Your task to perform on an android device: turn on translation in the chrome app Image 0: 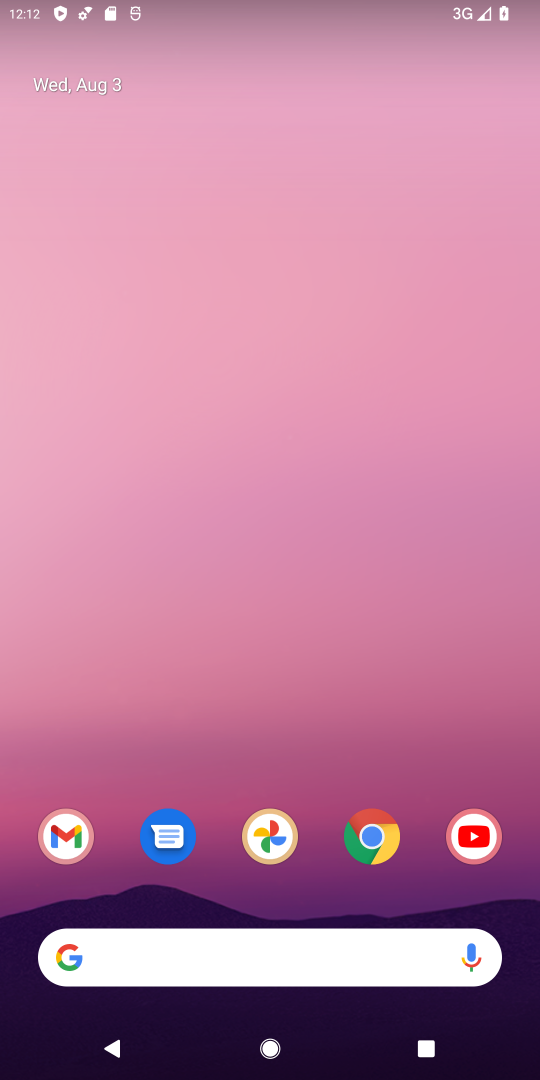
Step 0: drag from (211, 785) to (266, 191)
Your task to perform on an android device: turn on translation in the chrome app Image 1: 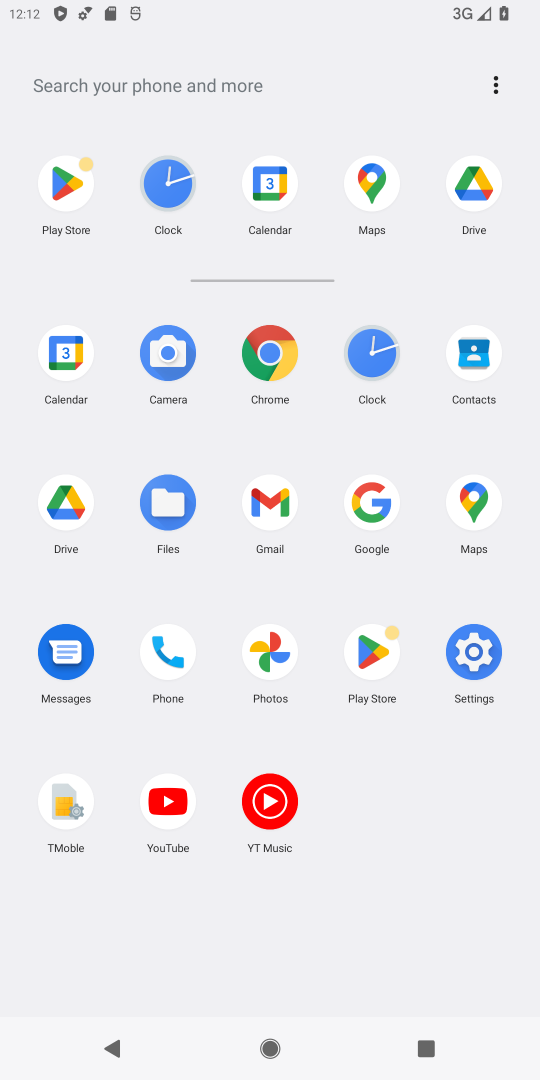
Step 1: click (272, 347)
Your task to perform on an android device: turn on translation in the chrome app Image 2: 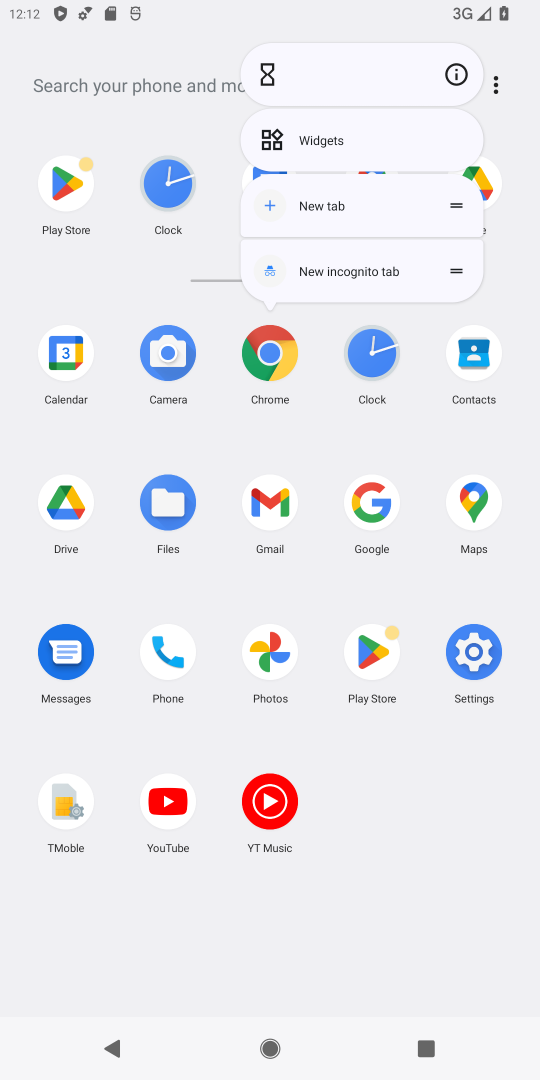
Step 2: click (455, 67)
Your task to perform on an android device: turn on translation in the chrome app Image 3: 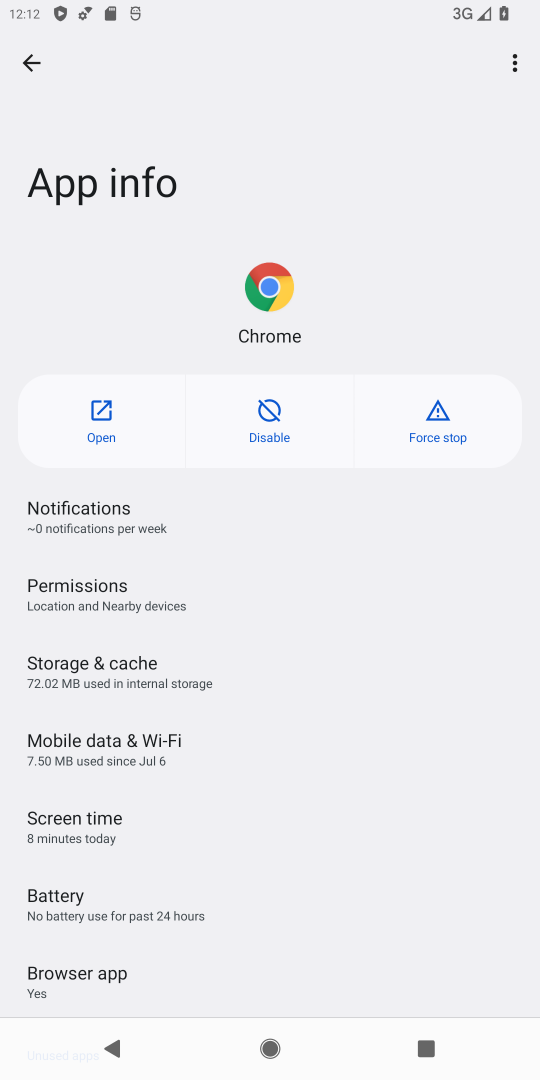
Step 3: click (114, 416)
Your task to perform on an android device: turn on translation in the chrome app Image 4: 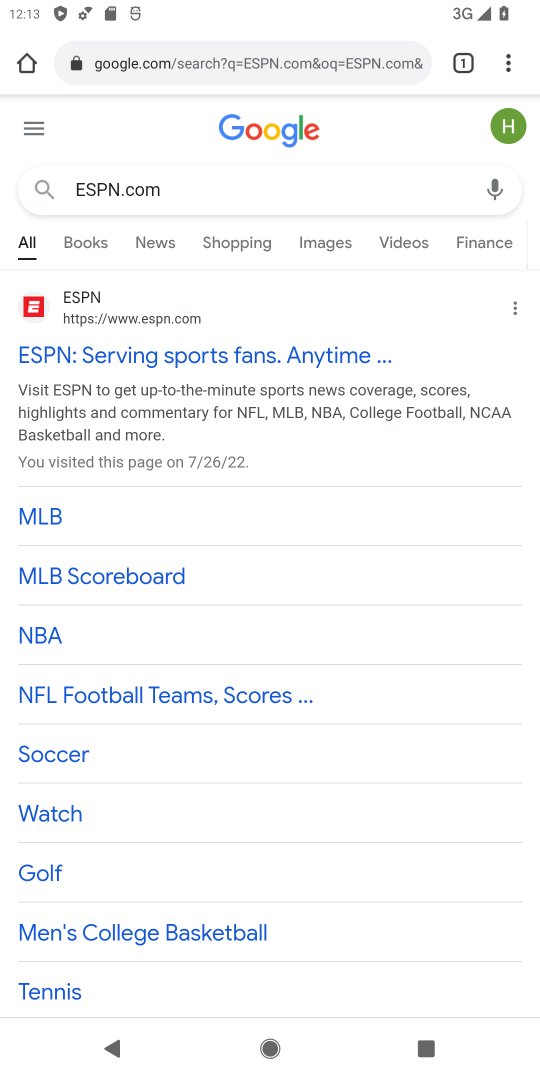
Step 4: drag from (508, 69) to (334, 809)
Your task to perform on an android device: turn on translation in the chrome app Image 5: 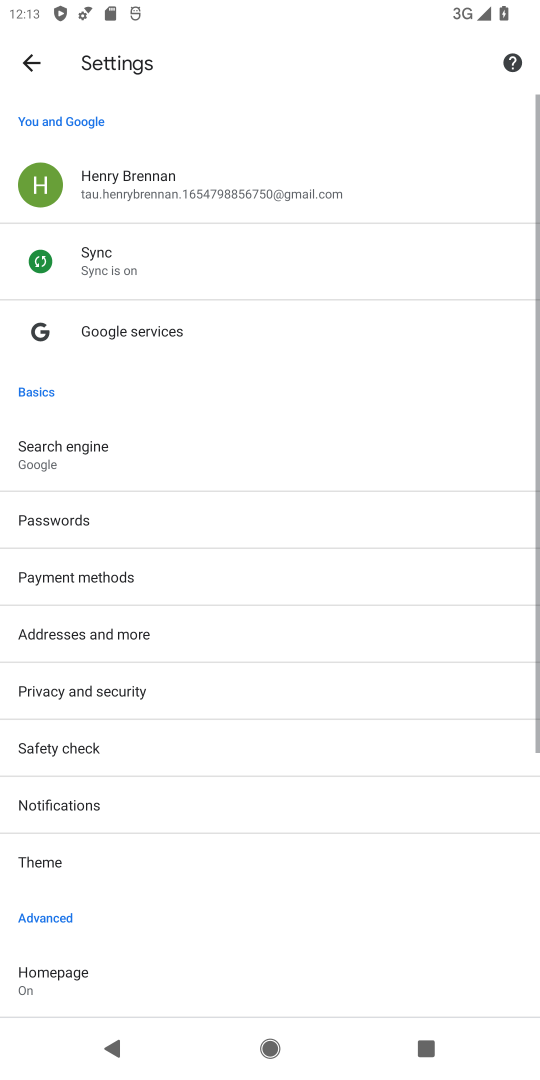
Step 5: drag from (130, 791) to (287, 359)
Your task to perform on an android device: turn on translation in the chrome app Image 6: 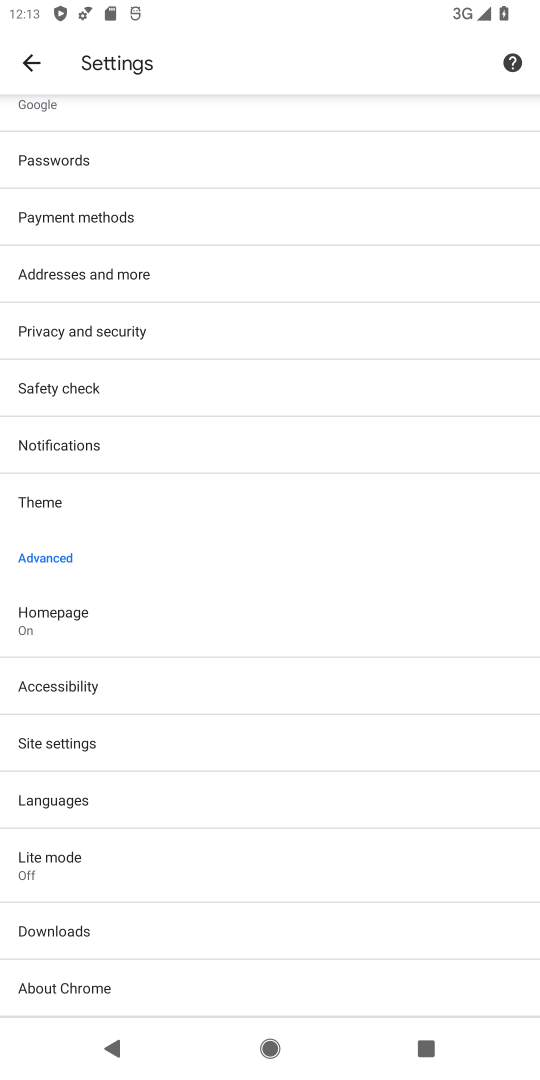
Step 6: drag from (218, 847) to (312, 435)
Your task to perform on an android device: turn on translation in the chrome app Image 7: 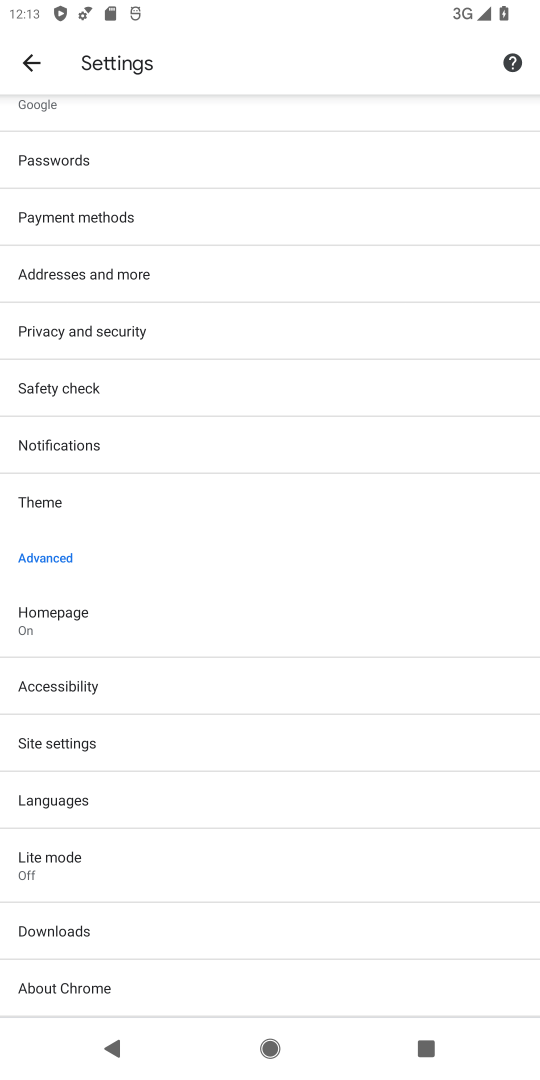
Step 7: drag from (273, 793) to (397, 331)
Your task to perform on an android device: turn on translation in the chrome app Image 8: 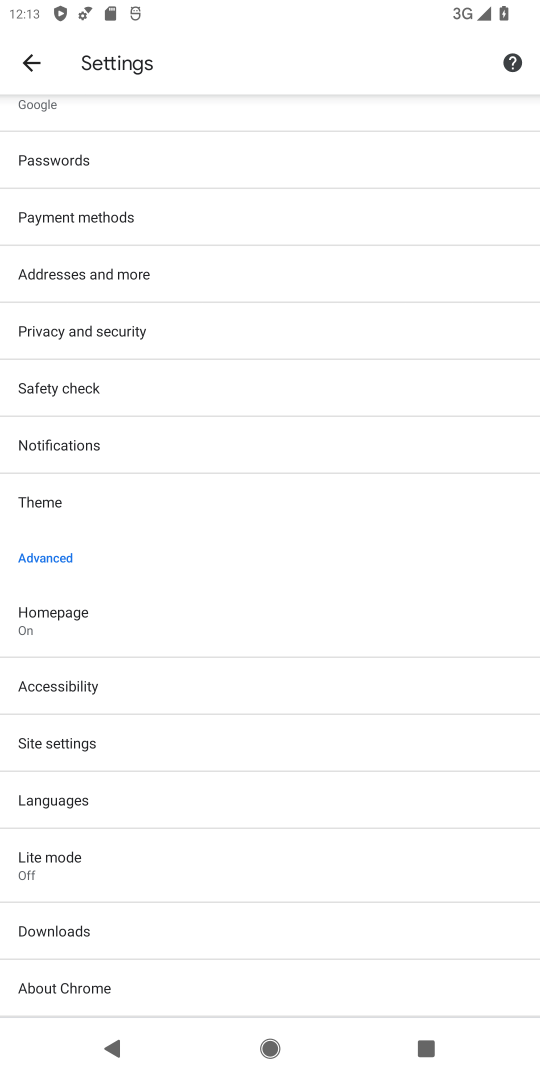
Step 8: click (127, 794)
Your task to perform on an android device: turn on translation in the chrome app Image 9: 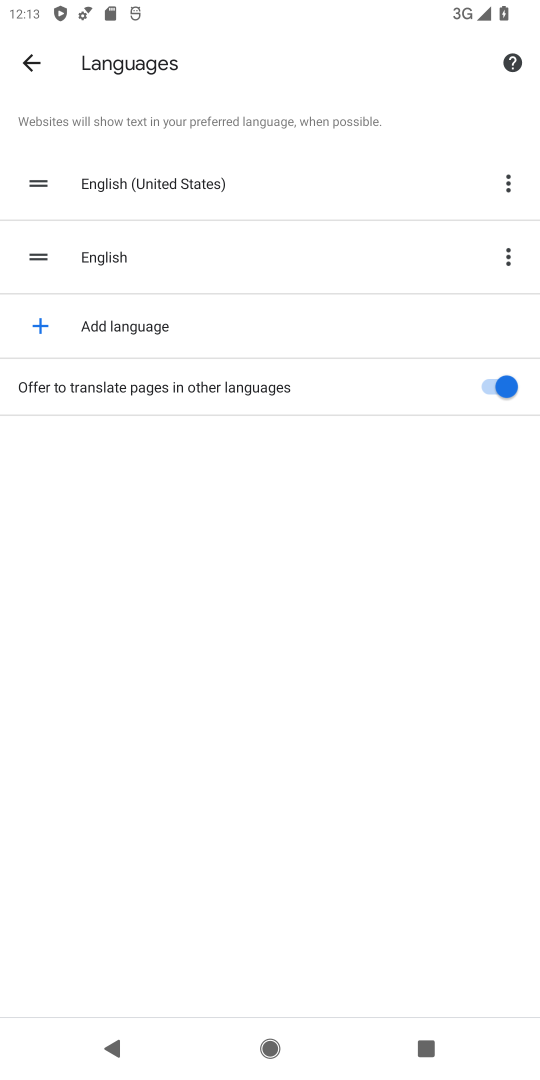
Step 9: click (496, 375)
Your task to perform on an android device: turn on translation in the chrome app Image 10: 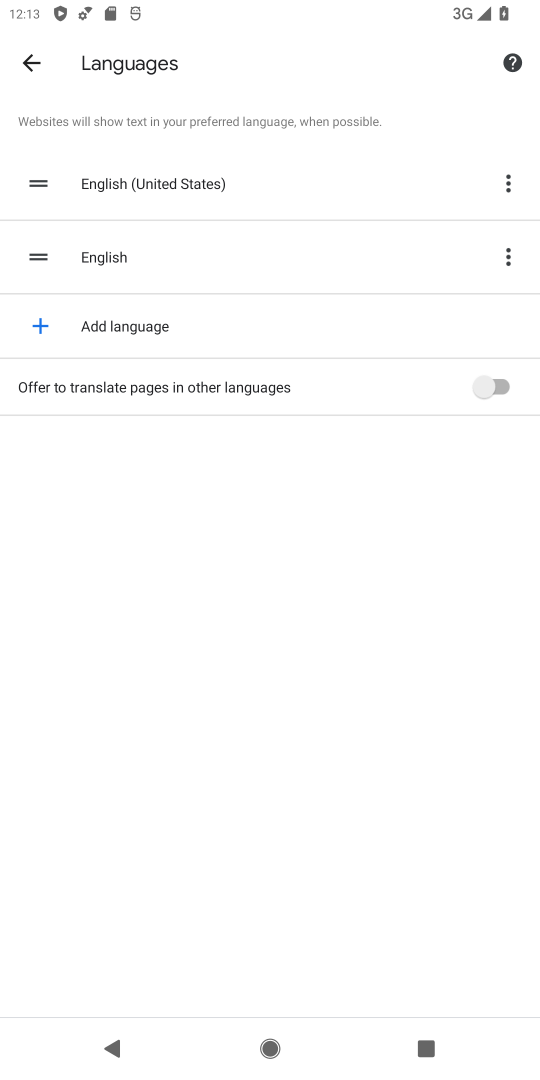
Step 10: task complete